Your task to perform on an android device: turn on location history Image 0: 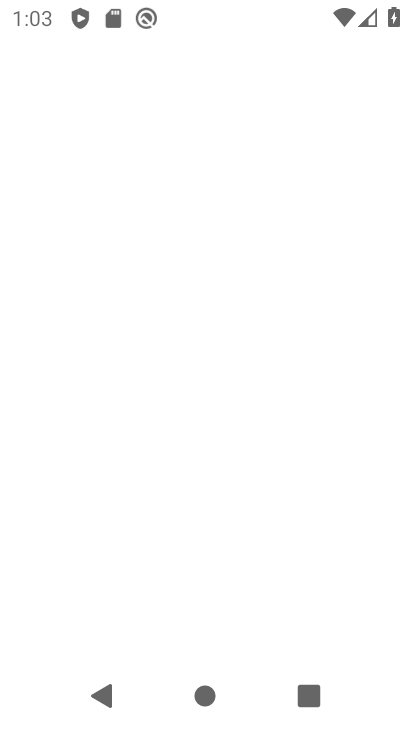
Step 0: press home button
Your task to perform on an android device: turn on location history Image 1: 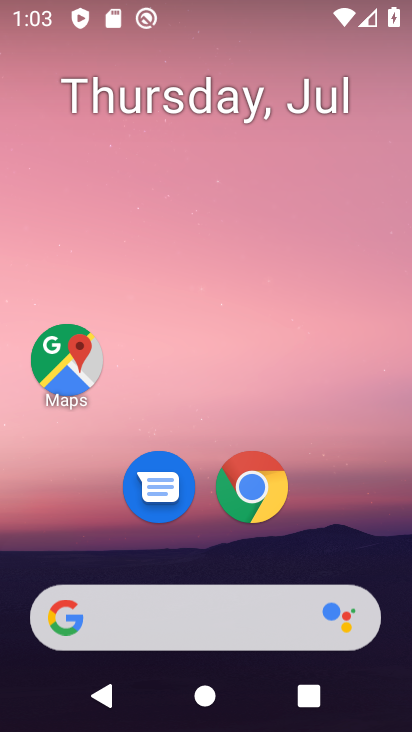
Step 1: drag from (390, 507) to (315, 10)
Your task to perform on an android device: turn on location history Image 2: 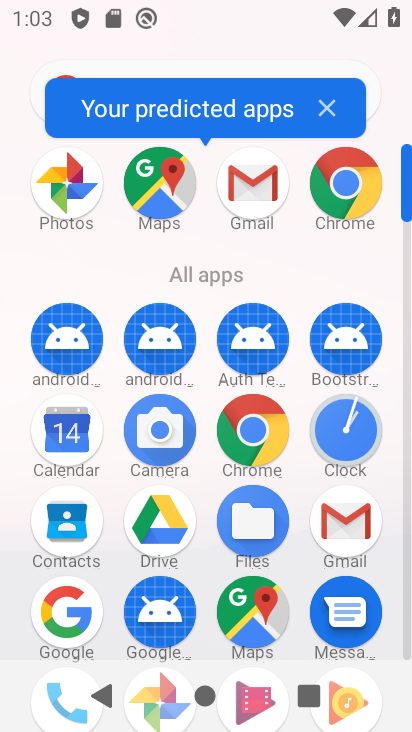
Step 2: click (170, 186)
Your task to perform on an android device: turn on location history Image 3: 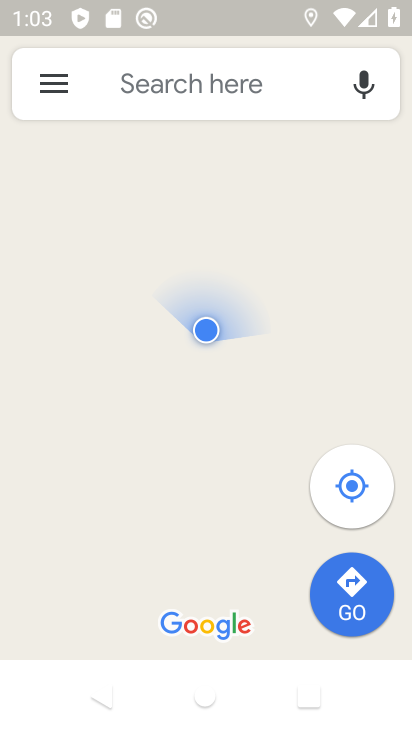
Step 3: click (59, 75)
Your task to perform on an android device: turn on location history Image 4: 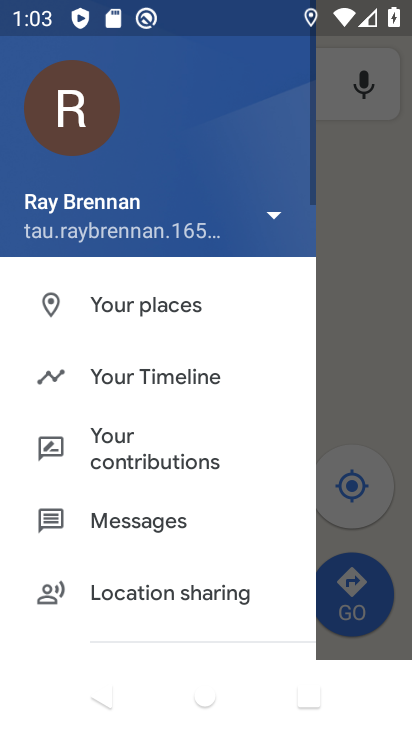
Step 4: click (155, 378)
Your task to perform on an android device: turn on location history Image 5: 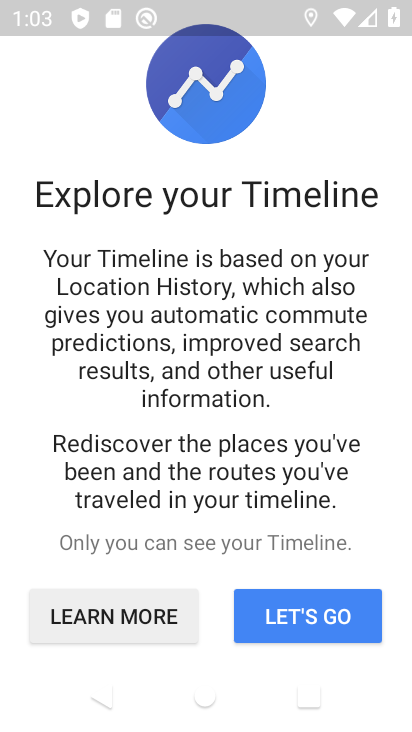
Step 5: click (336, 619)
Your task to perform on an android device: turn on location history Image 6: 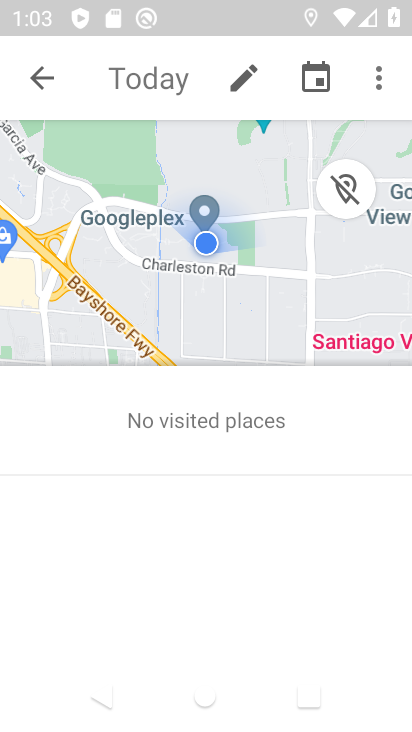
Step 6: click (383, 79)
Your task to perform on an android device: turn on location history Image 7: 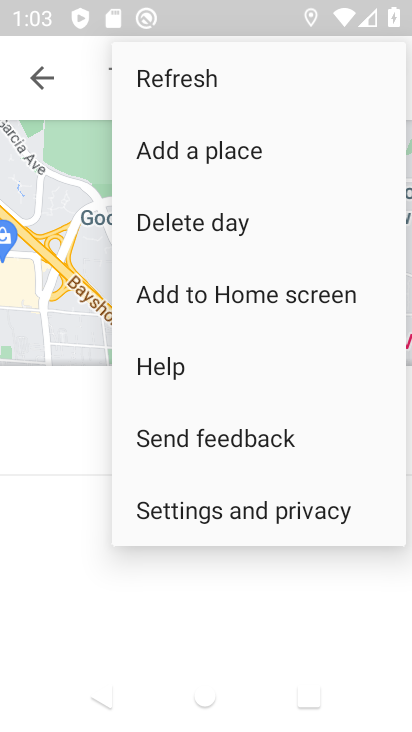
Step 7: click (266, 514)
Your task to perform on an android device: turn on location history Image 8: 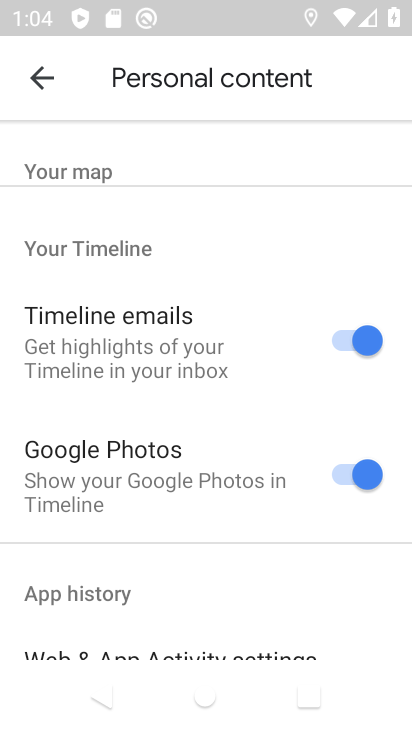
Step 8: drag from (267, 593) to (181, 125)
Your task to perform on an android device: turn on location history Image 9: 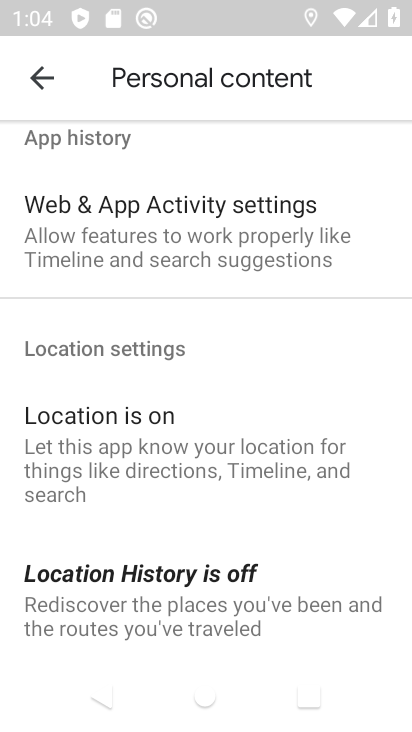
Step 9: drag from (262, 609) to (218, 201)
Your task to perform on an android device: turn on location history Image 10: 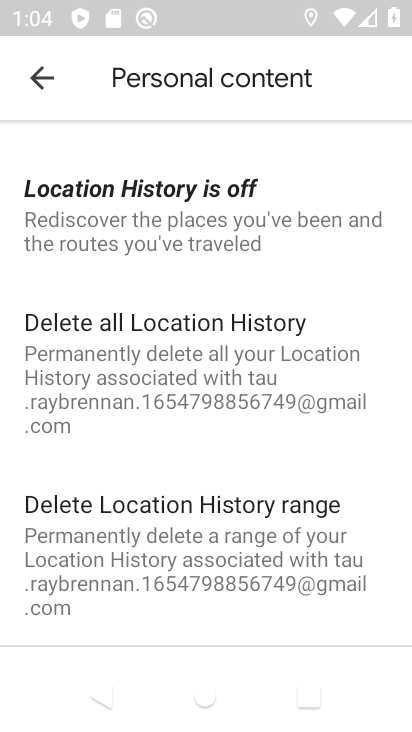
Step 10: click (229, 228)
Your task to perform on an android device: turn on location history Image 11: 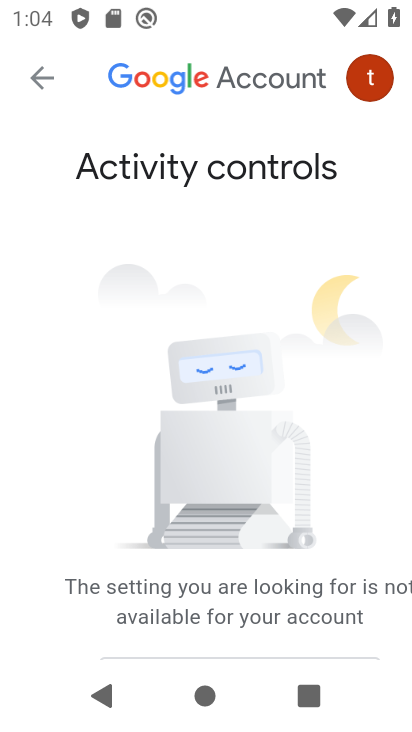
Step 11: task complete